Your task to perform on an android device: add a label to a message in the gmail app Image 0: 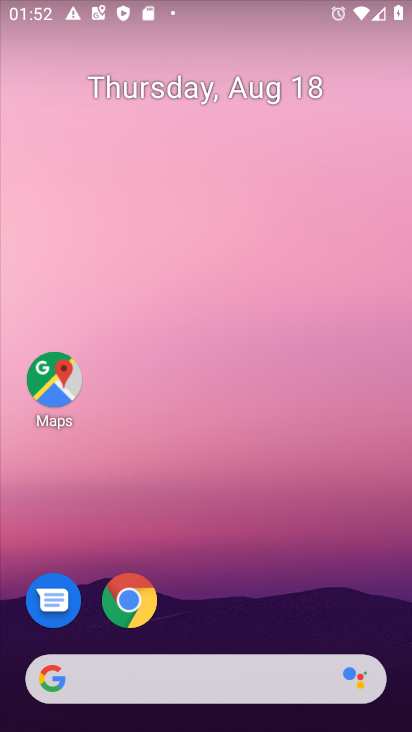
Step 0: press home button
Your task to perform on an android device: add a label to a message in the gmail app Image 1: 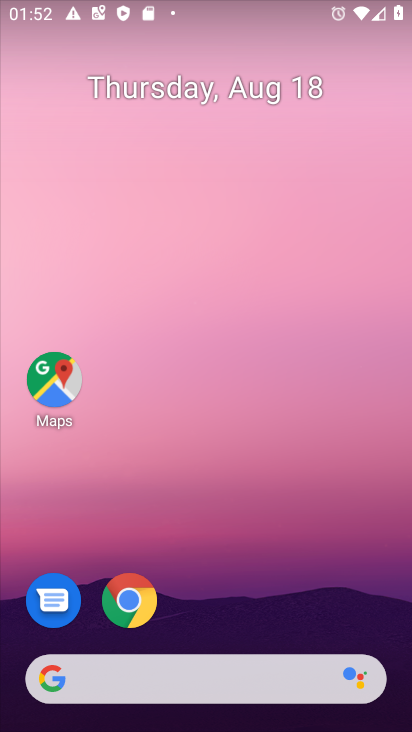
Step 1: press home button
Your task to perform on an android device: add a label to a message in the gmail app Image 2: 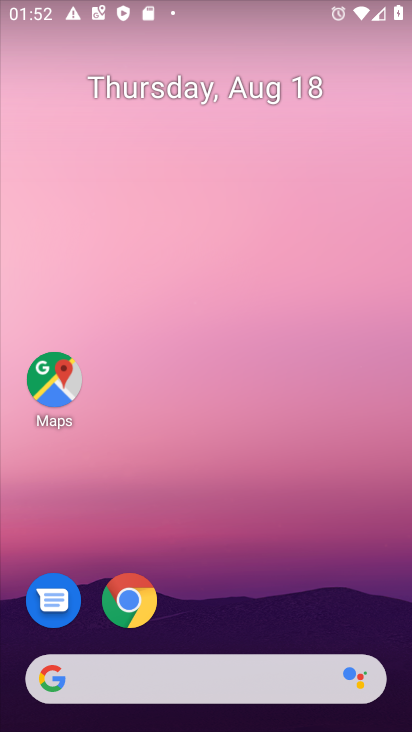
Step 2: drag from (255, 599) to (262, 116)
Your task to perform on an android device: add a label to a message in the gmail app Image 3: 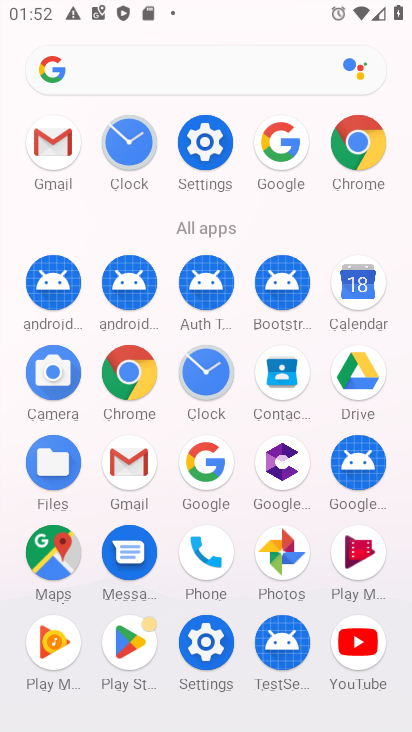
Step 3: click (54, 149)
Your task to perform on an android device: add a label to a message in the gmail app Image 4: 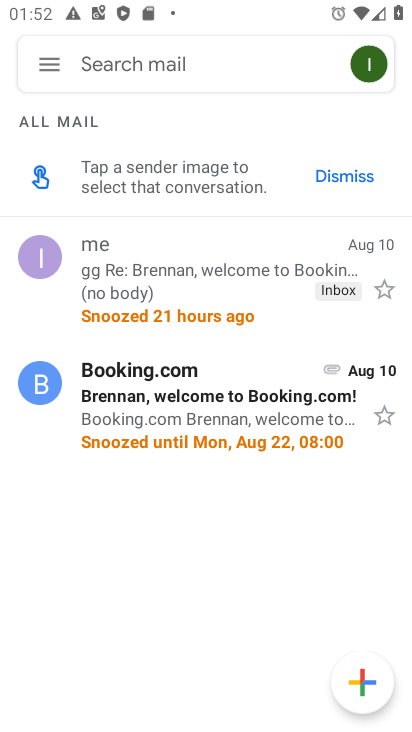
Step 4: click (160, 271)
Your task to perform on an android device: add a label to a message in the gmail app Image 5: 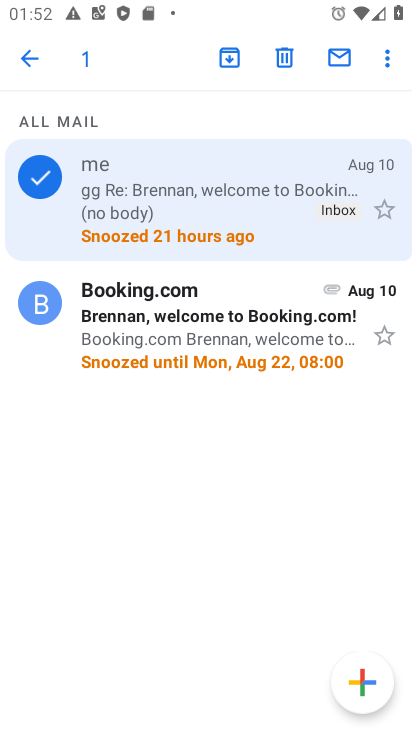
Step 5: click (385, 50)
Your task to perform on an android device: add a label to a message in the gmail app Image 6: 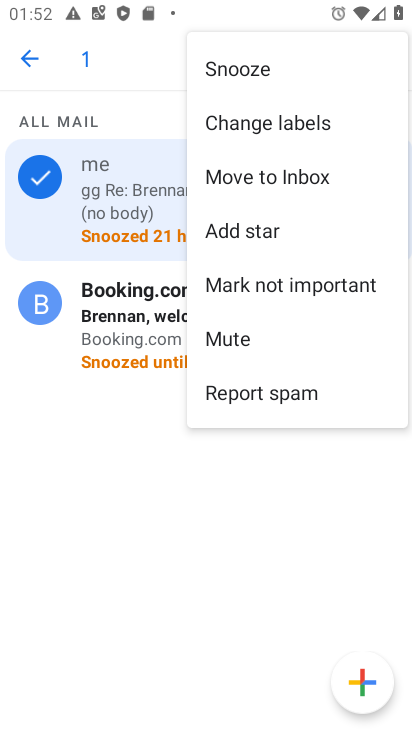
Step 6: click (271, 125)
Your task to perform on an android device: add a label to a message in the gmail app Image 7: 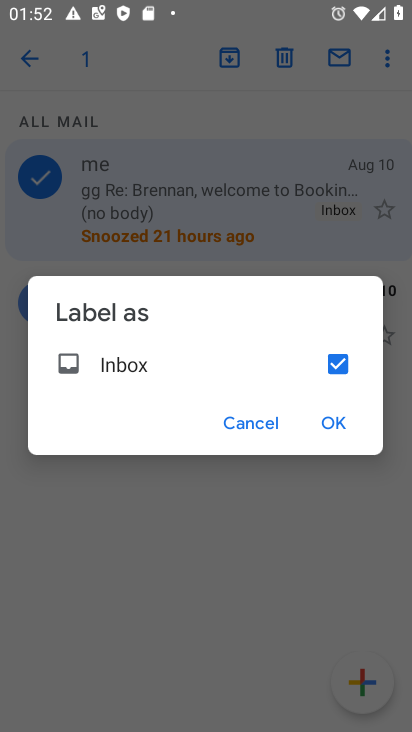
Step 7: click (327, 416)
Your task to perform on an android device: add a label to a message in the gmail app Image 8: 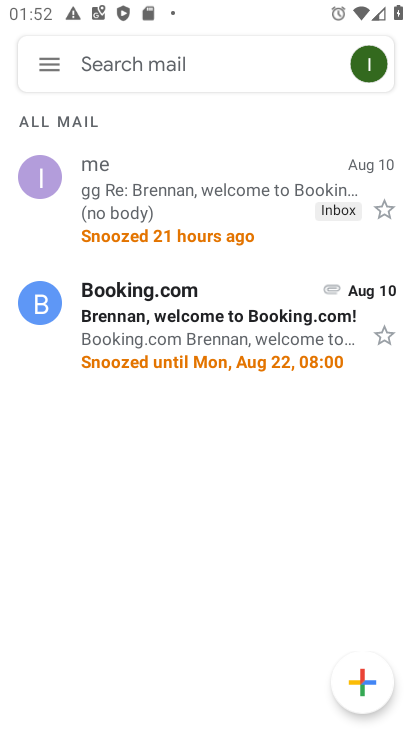
Step 8: task complete